Your task to perform on an android device: Open location settings Image 0: 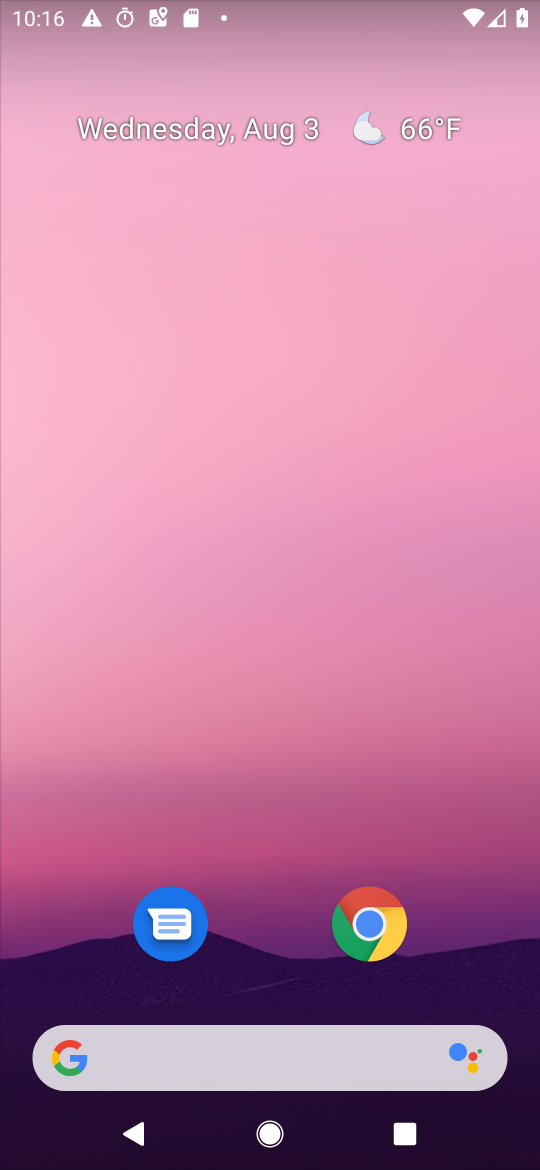
Step 0: press home button
Your task to perform on an android device: Open location settings Image 1: 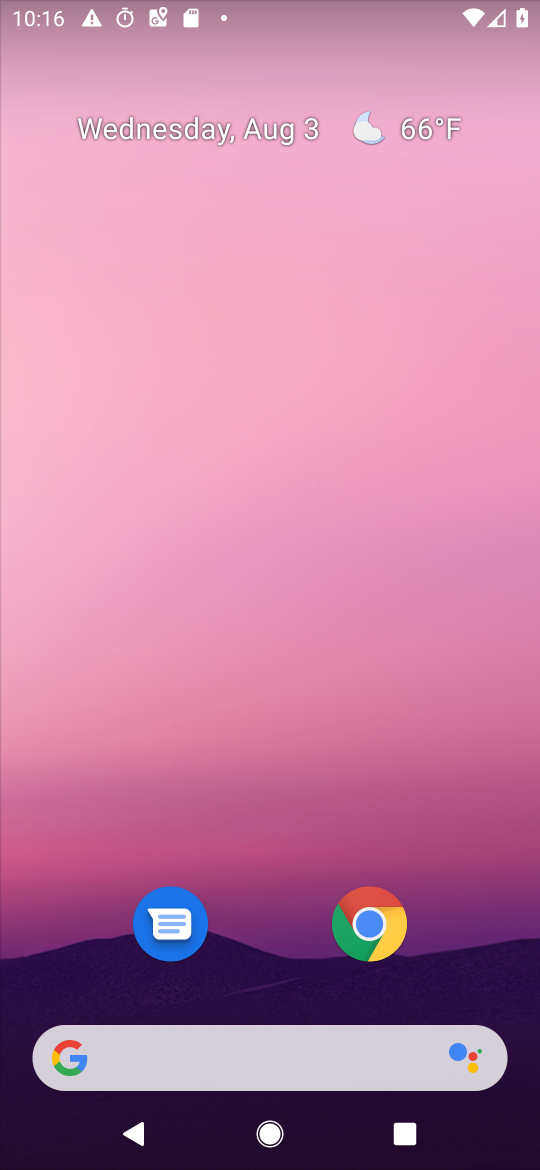
Step 1: drag from (287, 986) to (339, 78)
Your task to perform on an android device: Open location settings Image 2: 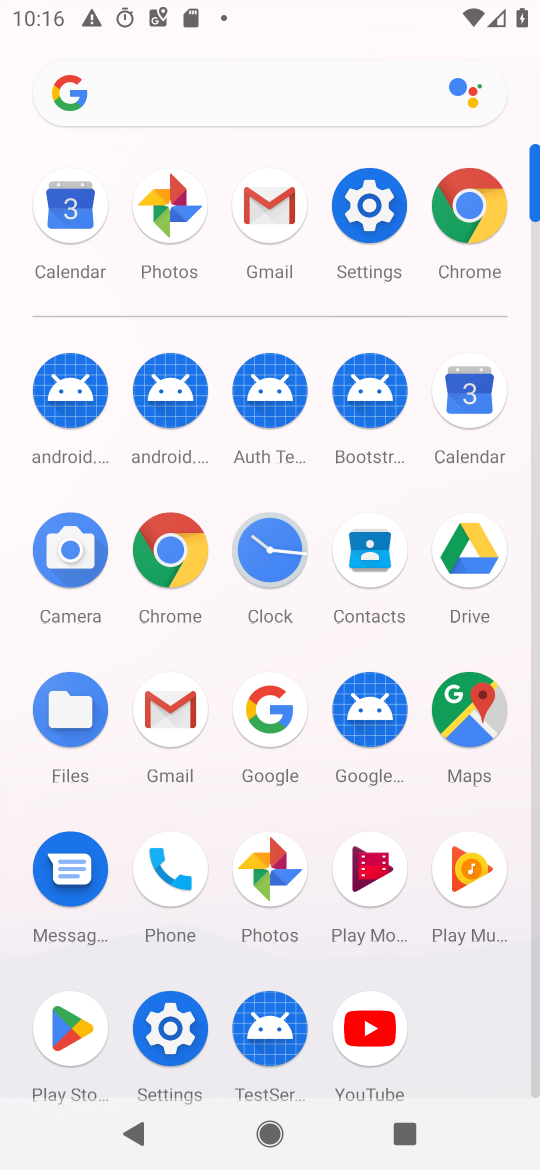
Step 2: click (367, 195)
Your task to perform on an android device: Open location settings Image 3: 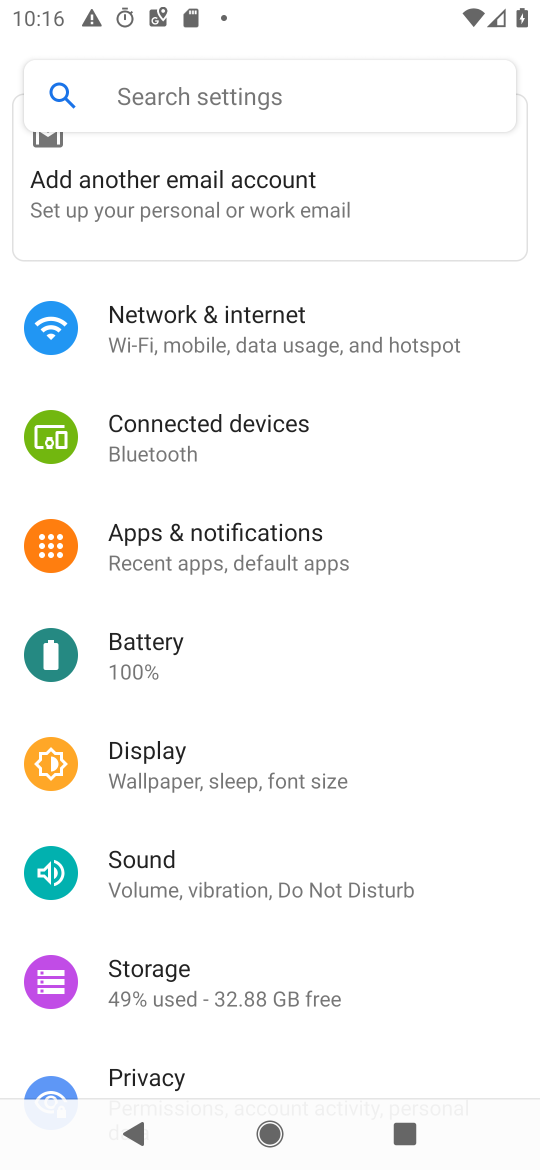
Step 3: drag from (231, 1042) to (271, 269)
Your task to perform on an android device: Open location settings Image 4: 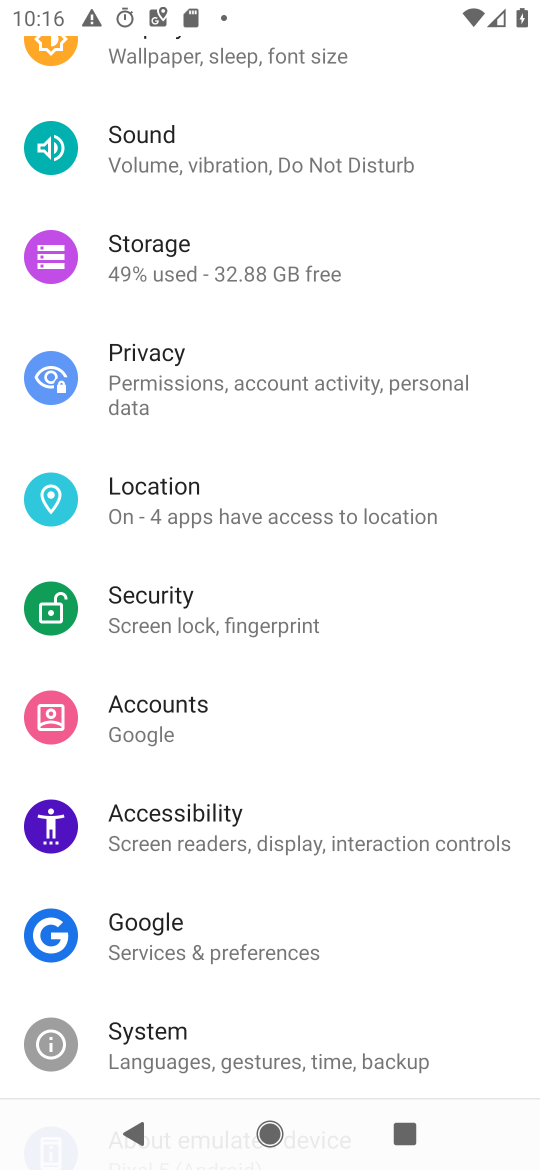
Step 4: click (209, 486)
Your task to perform on an android device: Open location settings Image 5: 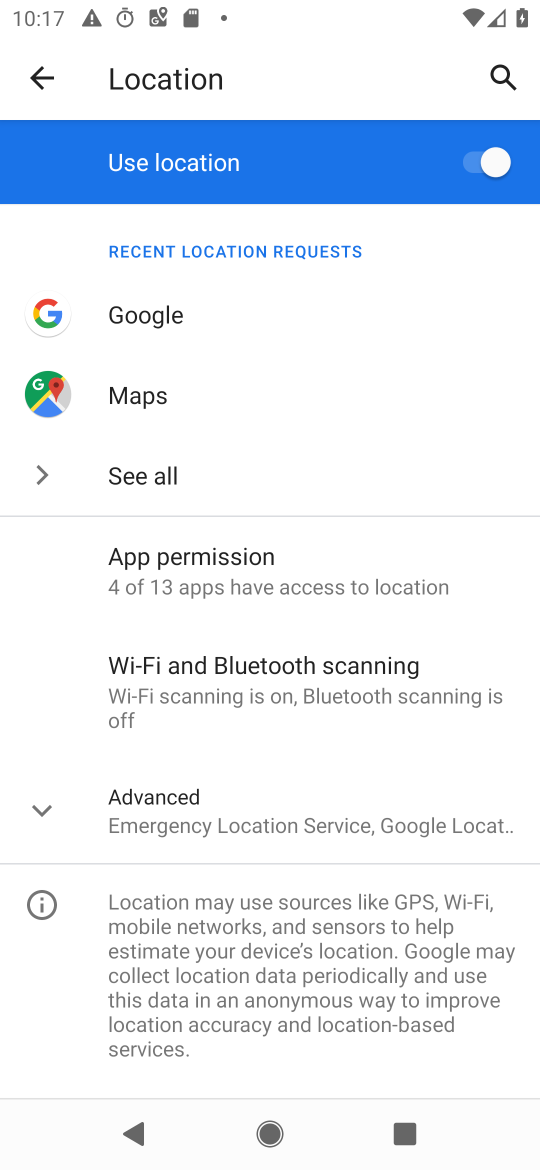
Step 5: click (40, 797)
Your task to perform on an android device: Open location settings Image 6: 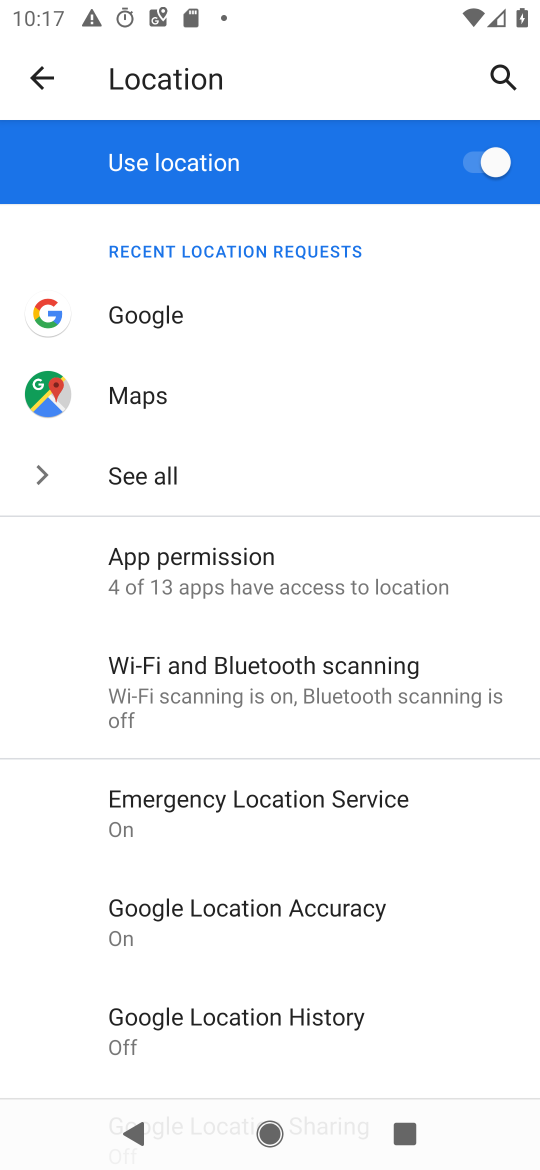
Step 6: task complete